Your task to perform on an android device: Open the Play Movies app and select the watchlist tab. Image 0: 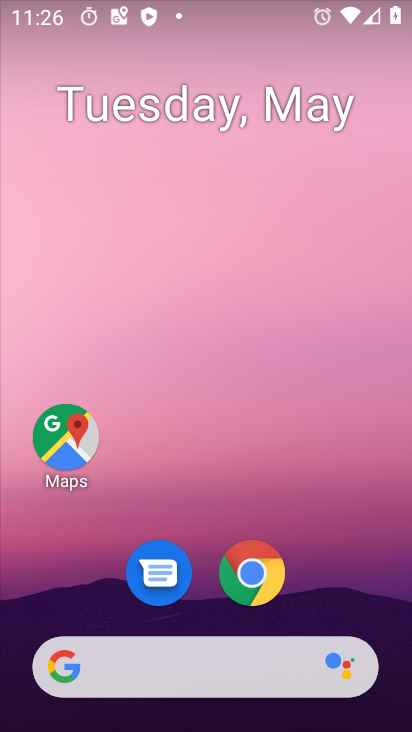
Step 0: drag from (313, 677) to (280, 223)
Your task to perform on an android device: Open the Play Movies app and select the watchlist tab. Image 1: 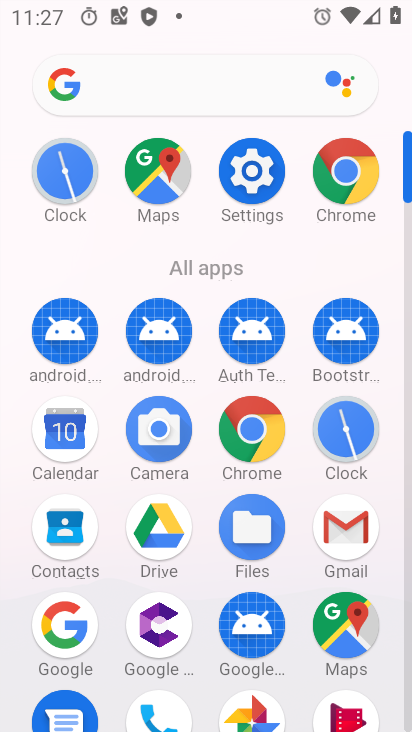
Step 1: click (345, 701)
Your task to perform on an android device: Open the Play Movies app and select the watchlist tab. Image 2: 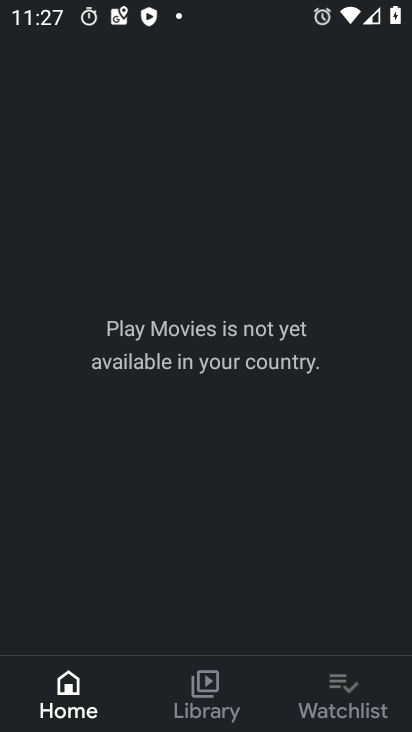
Step 2: click (317, 688)
Your task to perform on an android device: Open the Play Movies app and select the watchlist tab. Image 3: 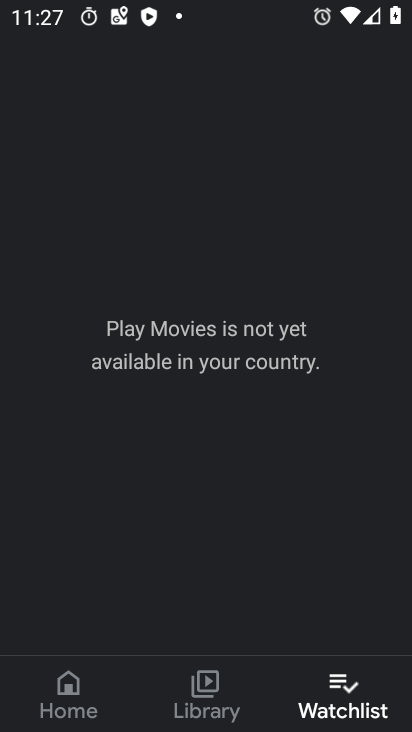
Step 3: task complete